Your task to perform on an android device: Open the Play Movies app and select the watchlist tab. Image 0: 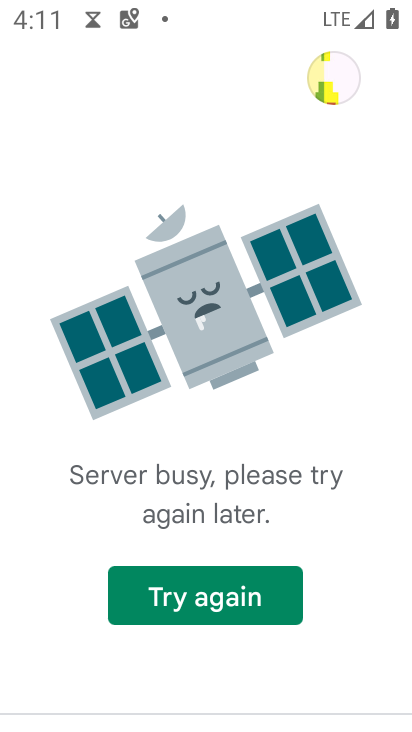
Step 0: press home button
Your task to perform on an android device: Open the Play Movies app and select the watchlist tab. Image 1: 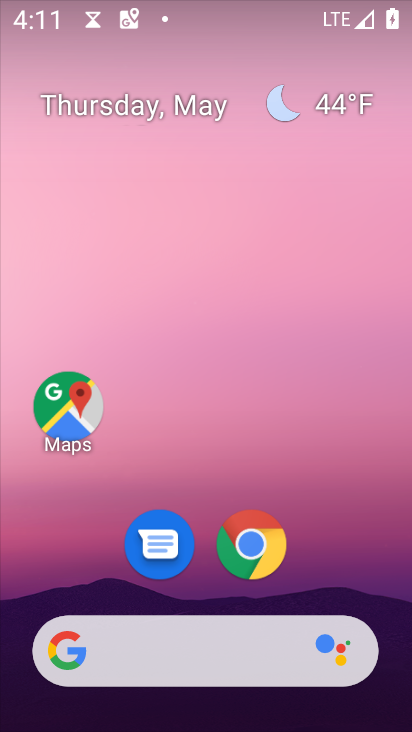
Step 1: drag from (310, 576) to (338, 77)
Your task to perform on an android device: Open the Play Movies app and select the watchlist tab. Image 2: 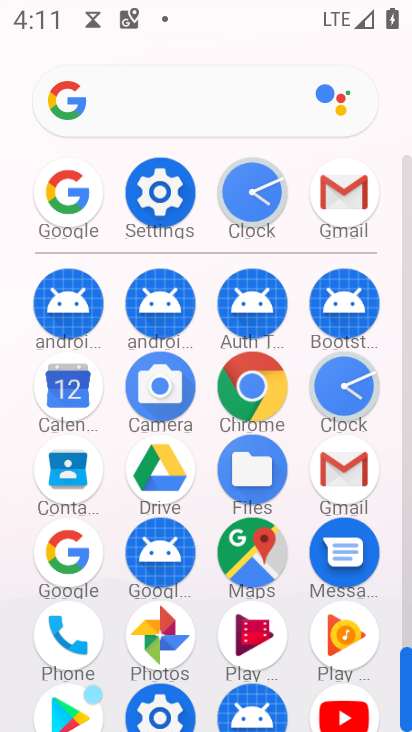
Step 2: click (263, 634)
Your task to perform on an android device: Open the Play Movies app and select the watchlist tab. Image 3: 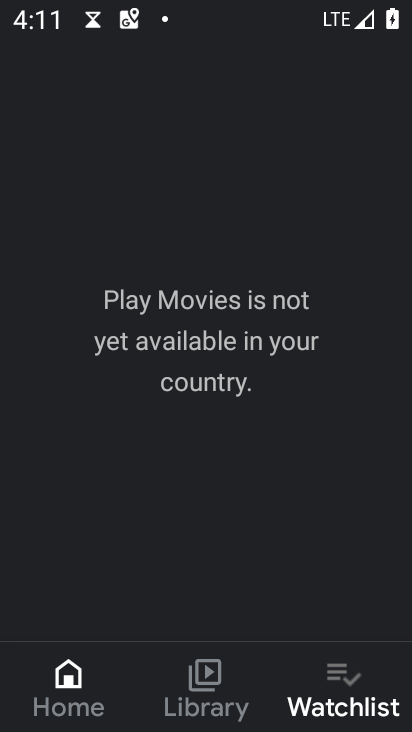
Step 3: task complete